Your task to perform on an android device: turn on priority inbox in the gmail app Image 0: 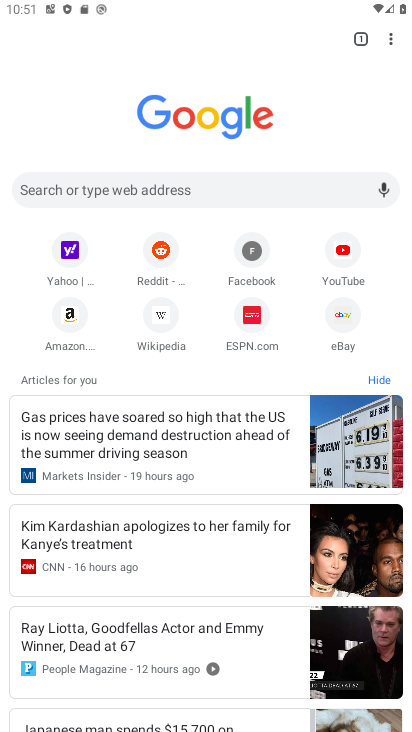
Step 0: press home button
Your task to perform on an android device: turn on priority inbox in the gmail app Image 1: 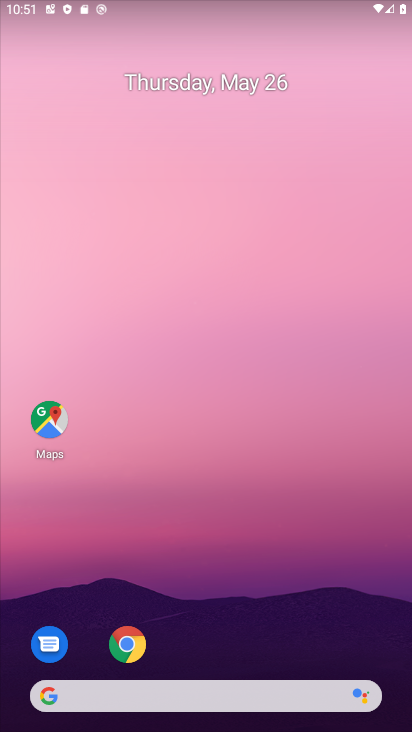
Step 1: drag from (364, 593) to (0, 74)
Your task to perform on an android device: turn on priority inbox in the gmail app Image 2: 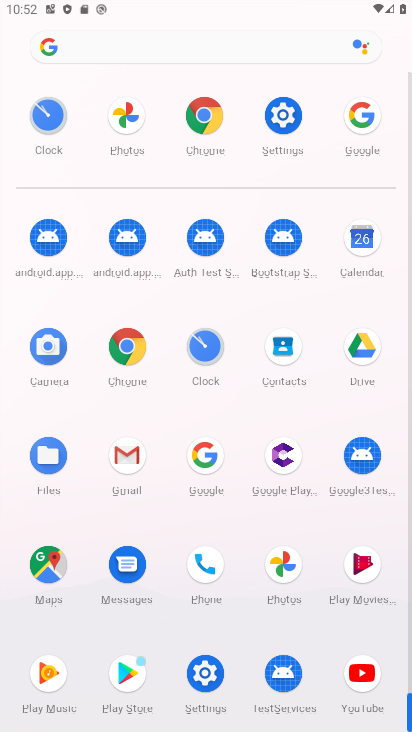
Step 2: click (136, 478)
Your task to perform on an android device: turn on priority inbox in the gmail app Image 3: 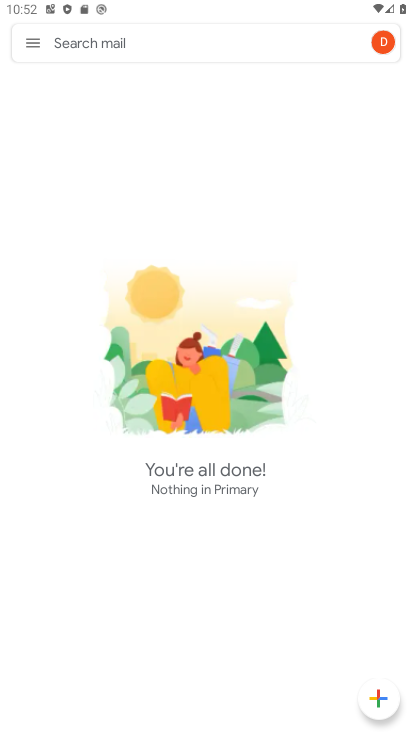
Step 3: click (15, 41)
Your task to perform on an android device: turn on priority inbox in the gmail app Image 4: 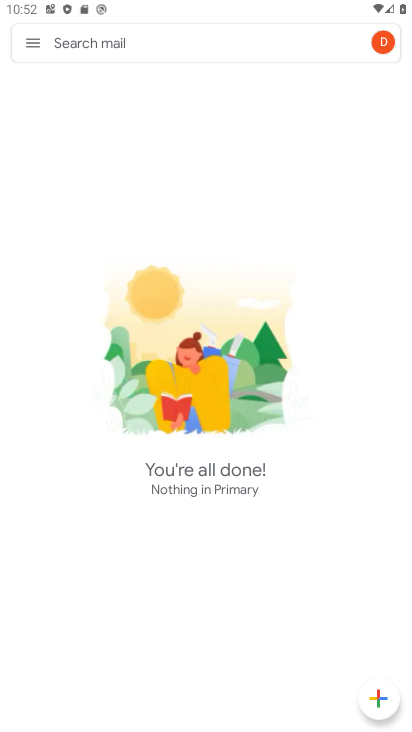
Step 4: click (27, 38)
Your task to perform on an android device: turn on priority inbox in the gmail app Image 5: 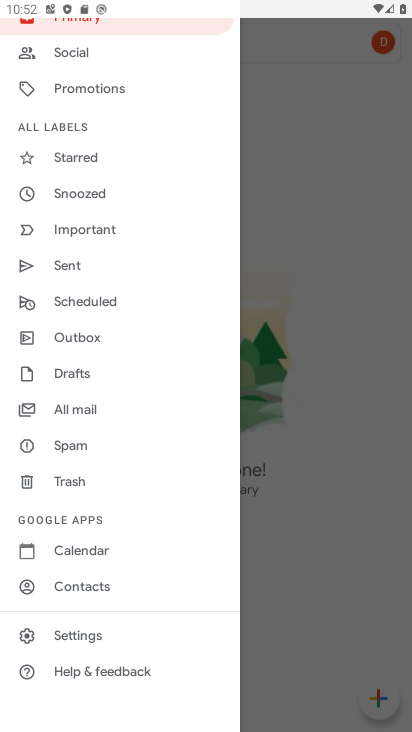
Step 5: click (94, 635)
Your task to perform on an android device: turn on priority inbox in the gmail app Image 6: 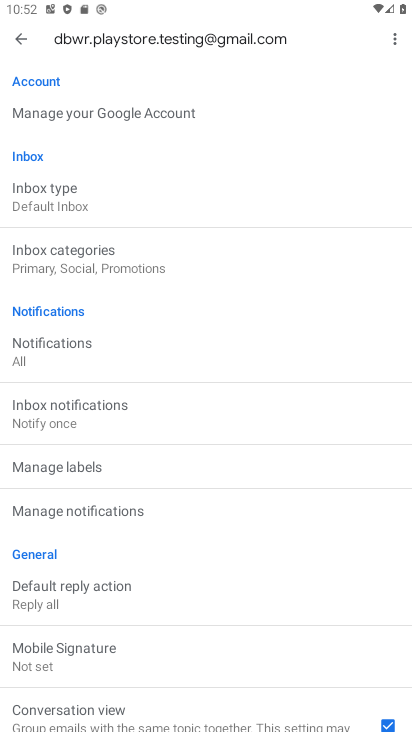
Step 6: click (61, 199)
Your task to perform on an android device: turn on priority inbox in the gmail app Image 7: 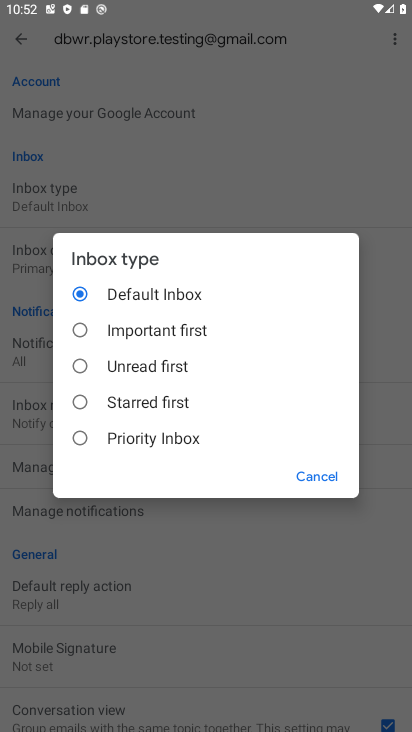
Step 7: click (88, 442)
Your task to perform on an android device: turn on priority inbox in the gmail app Image 8: 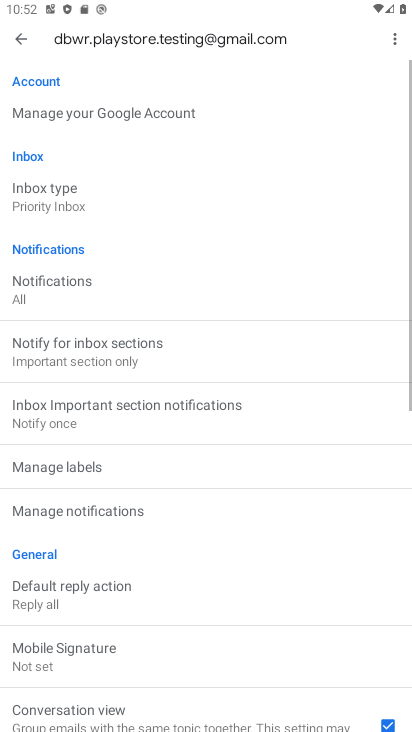
Step 8: task complete